Your task to perform on an android device: move a message to another label in the gmail app Image 0: 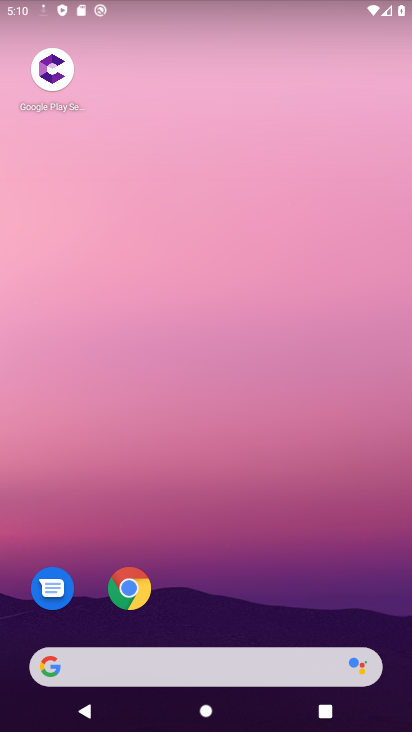
Step 0: drag from (256, 409) to (230, 25)
Your task to perform on an android device: move a message to another label in the gmail app Image 1: 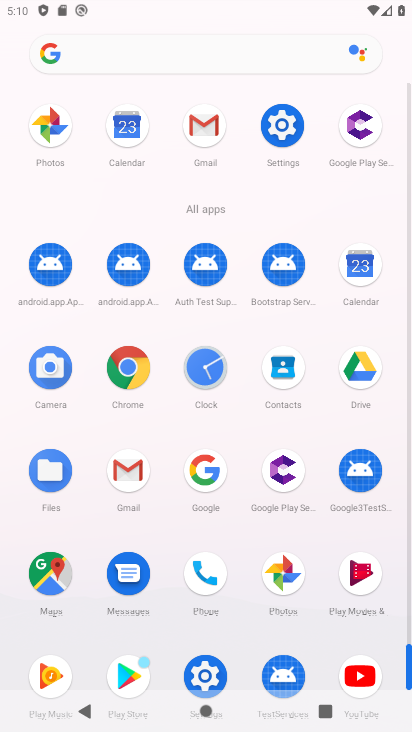
Step 1: drag from (6, 514) to (15, 168)
Your task to perform on an android device: move a message to another label in the gmail app Image 2: 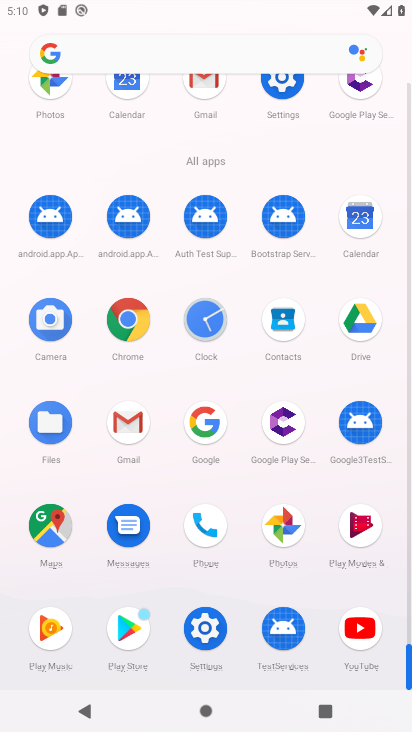
Step 2: click (130, 416)
Your task to perform on an android device: move a message to another label in the gmail app Image 3: 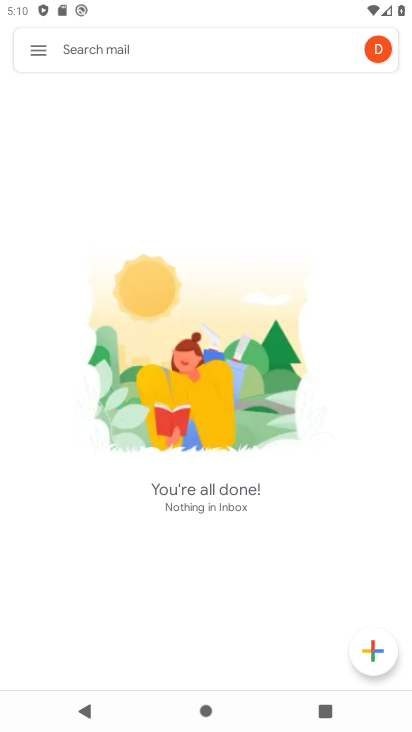
Step 3: click (39, 53)
Your task to perform on an android device: move a message to another label in the gmail app Image 4: 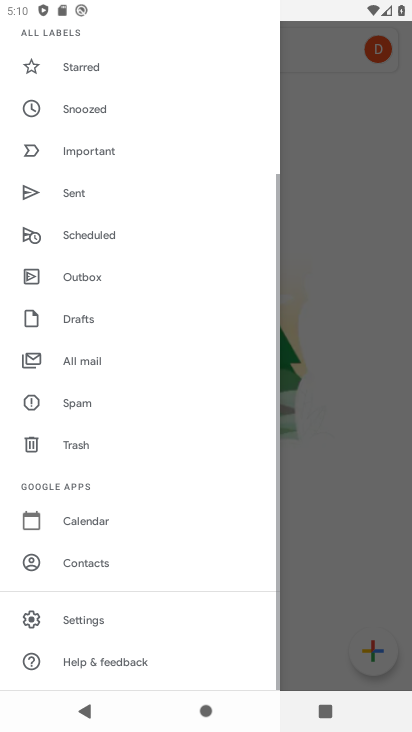
Step 4: drag from (152, 583) to (158, 135)
Your task to perform on an android device: move a message to another label in the gmail app Image 5: 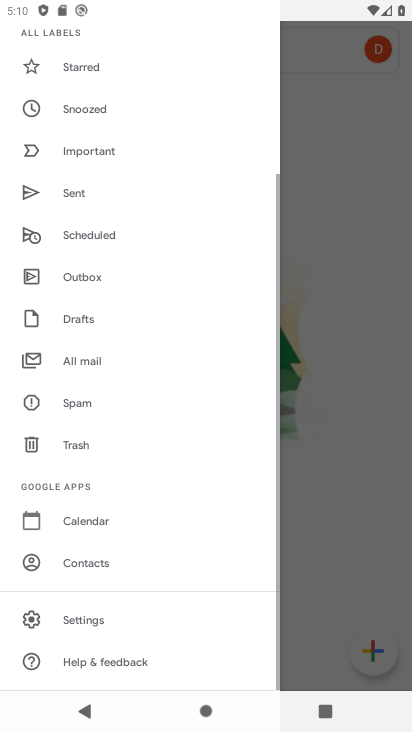
Step 5: drag from (166, 143) to (192, 584)
Your task to perform on an android device: move a message to another label in the gmail app Image 6: 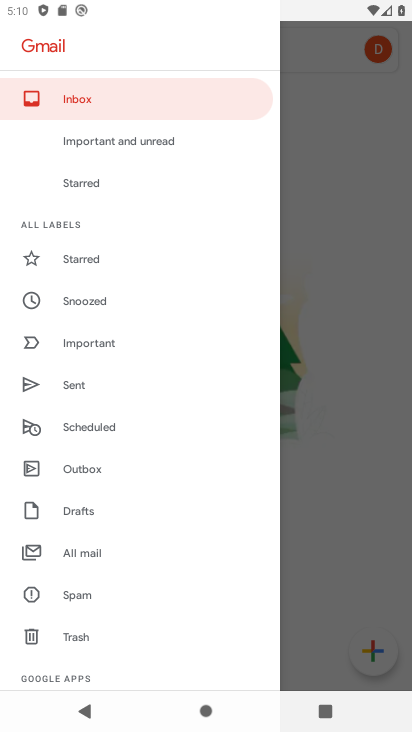
Step 6: drag from (181, 603) to (208, 127)
Your task to perform on an android device: move a message to another label in the gmail app Image 7: 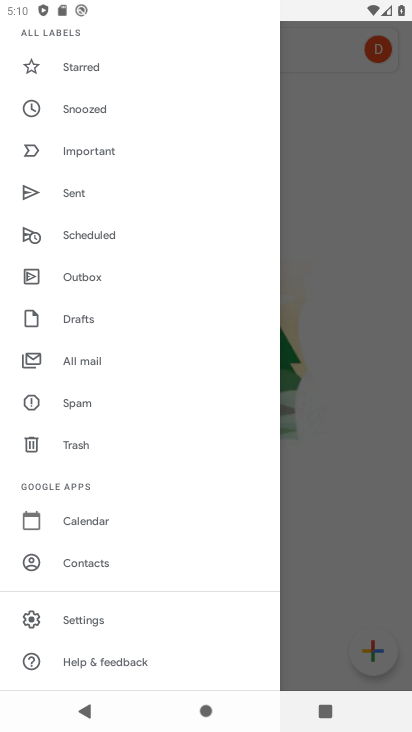
Step 7: click (112, 360)
Your task to perform on an android device: move a message to another label in the gmail app Image 8: 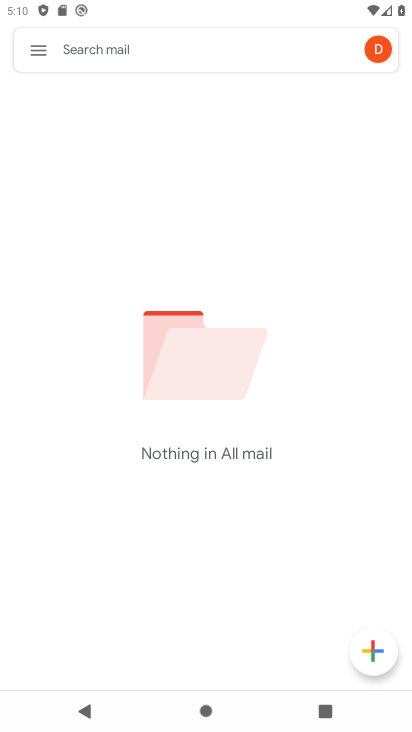
Step 8: click (38, 42)
Your task to perform on an android device: move a message to another label in the gmail app Image 9: 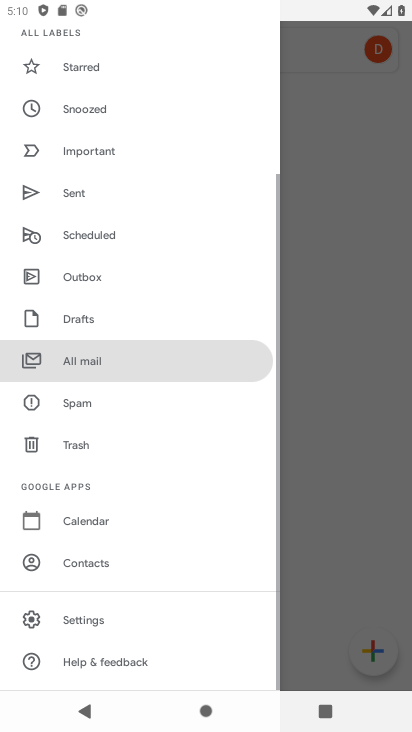
Step 9: drag from (158, 116) to (152, 537)
Your task to perform on an android device: move a message to another label in the gmail app Image 10: 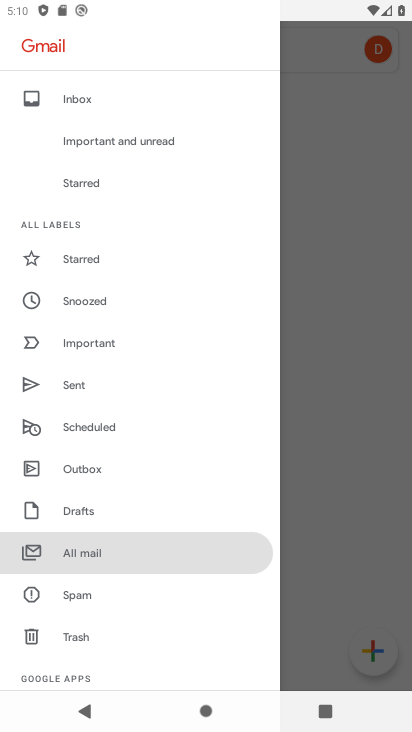
Step 10: click (124, 101)
Your task to perform on an android device: move a message to another label in the gmail app Image 11: 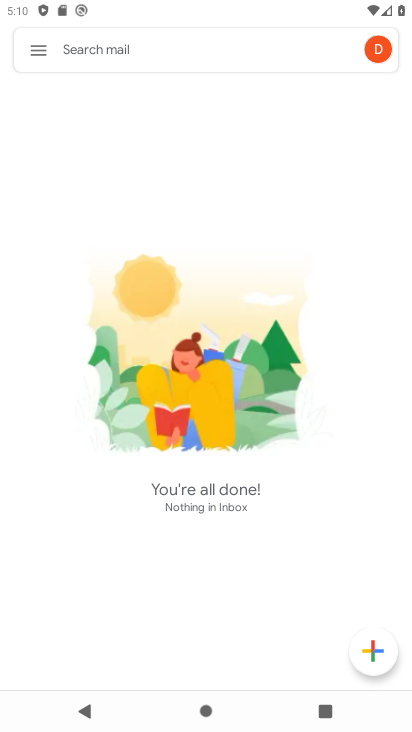
Step 11: click (32, 39)
Your task to perform on an android device: move a message to another label in the gmail app Image 12: 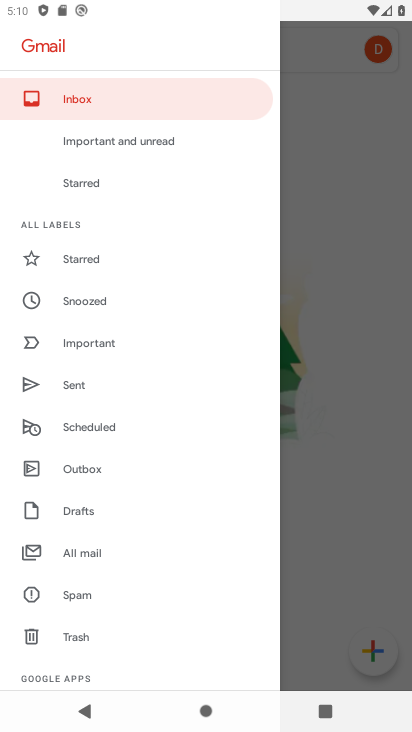
Step 12: drag from (173, 192) to (174, 539)
Your task to perform on an android device: move a message to another label in the gmail app Image 13: 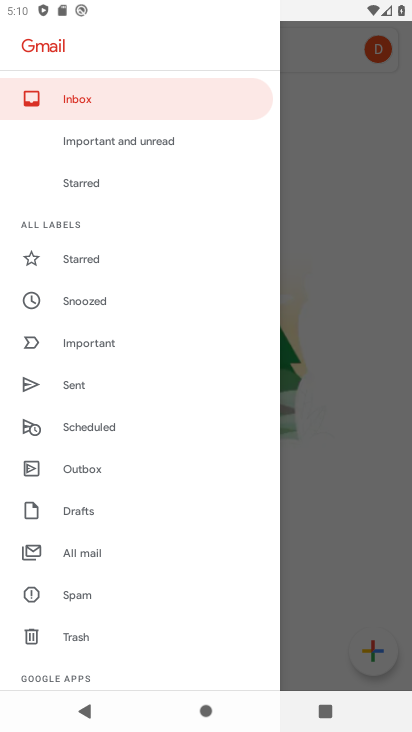
Step 13: click (162, 479)
Your task to perform on an android device: move a message to another label in the gmail app Image 14: 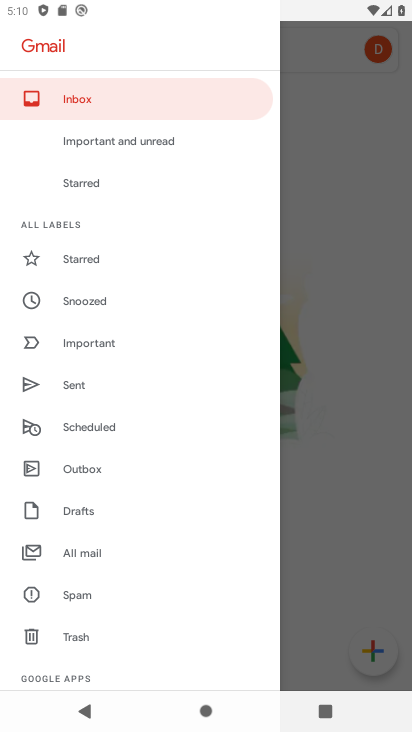
Step 14: click (92, 544)
Your task to perform on an android device: move a message to another label in the gmail app Image 15: 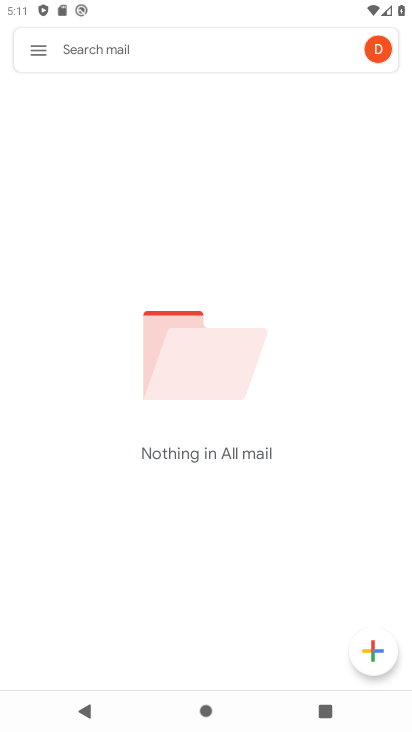
Step 15: click (49, 41)
Your task to perform on an android device: move a message to another label in the gmail app Image 16: 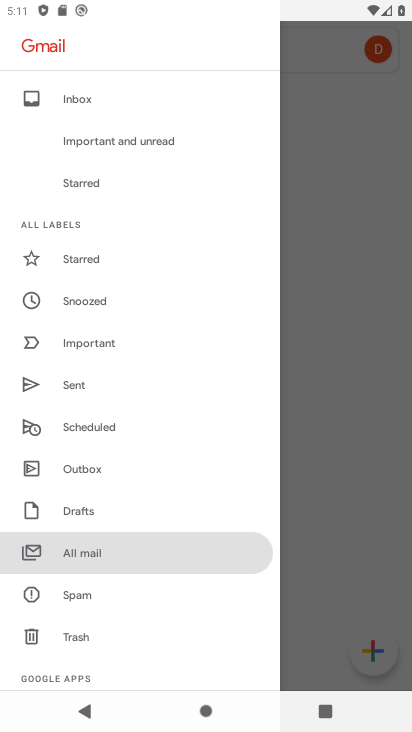
Step 16: click (103, 101)
Your task to perform on an android device: move a message to another label in the gmail app Image 17: 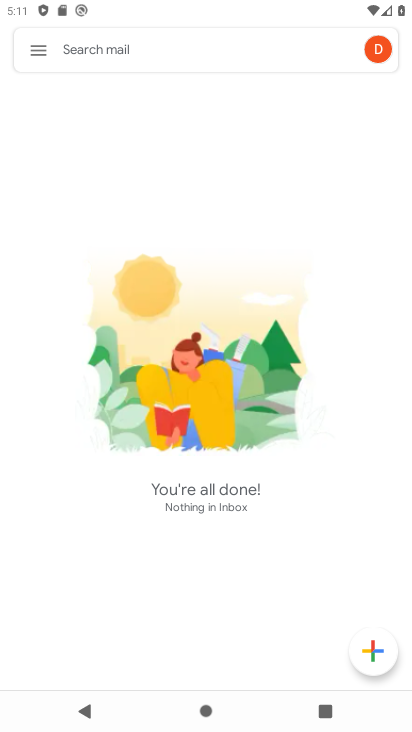
Step 17: click (45, 49)
Your task to perform on an android device: move a message to another label in the gmail app Image 18: 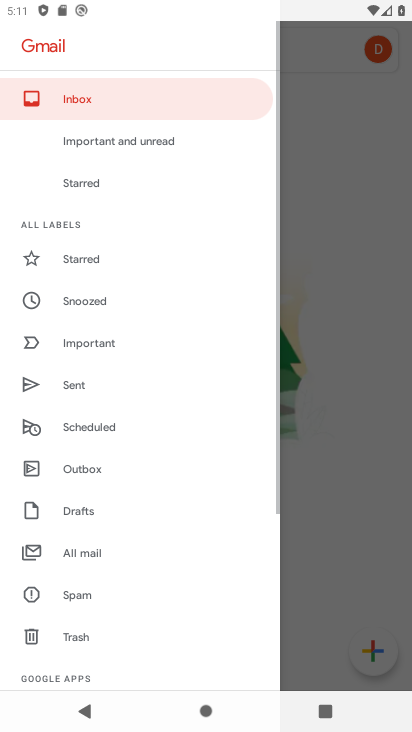
Step 18: click (115, 256)
Your task to perform on an android device: move a message to another label in the gmail app Image 19: 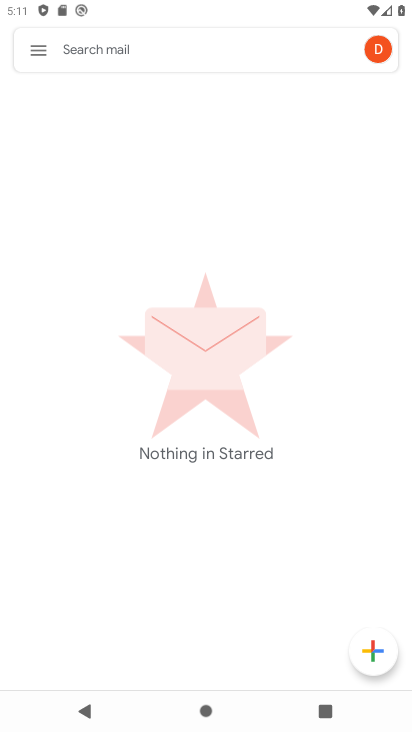
Step 19: task complete